Your task to perform on an android device: What's the weather? Image 0: 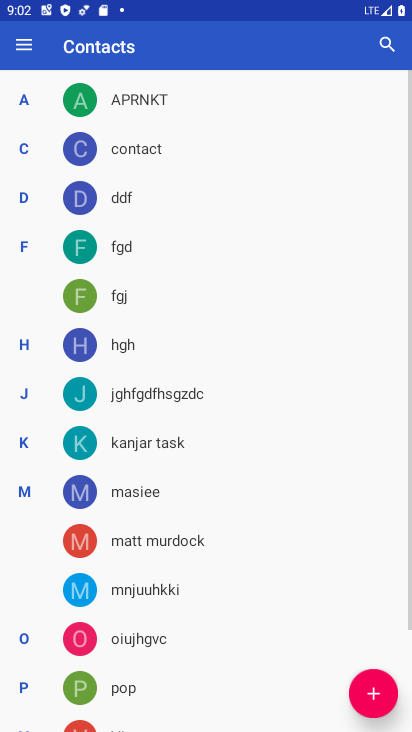
Step 0: press home button
Your task to perform on an android device: What's the weather? Image 1: 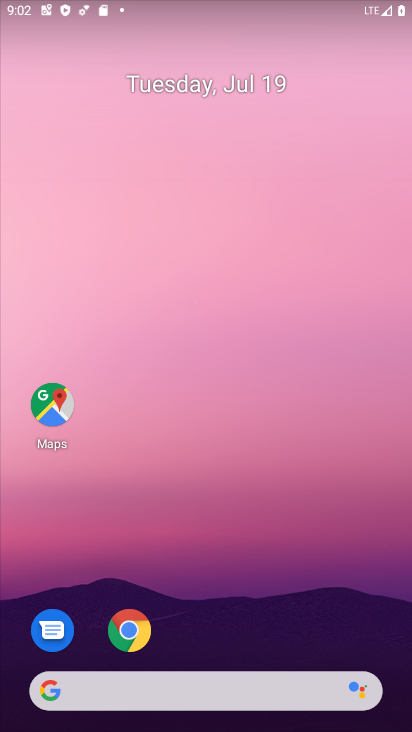
Step 1: drag from (242, 621) to (246, 170)
Your task to perform on an android device: What's the weather? Image 2: 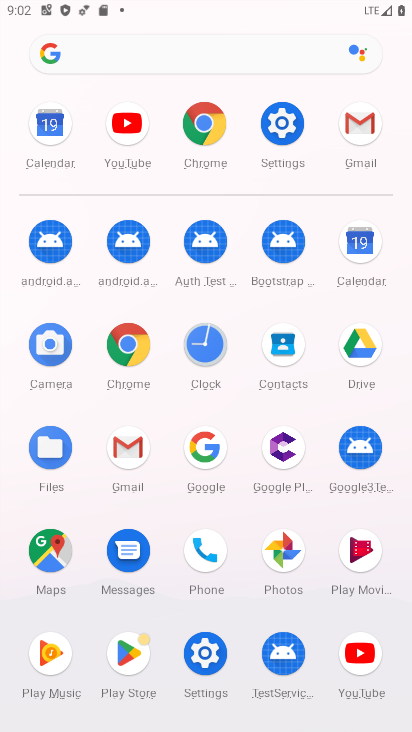
Step 2: click (205, 449)
Your task to perform on an android device: What's the weather? Image 3: 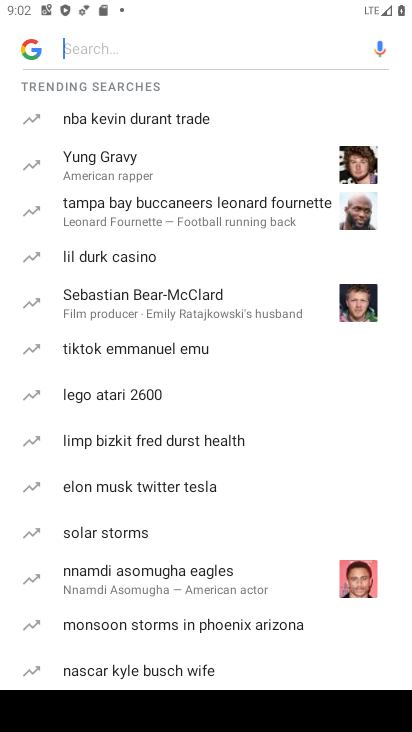
Step 3: type "weather"
Your task to perform on an android device: What's the weather? Image 4: 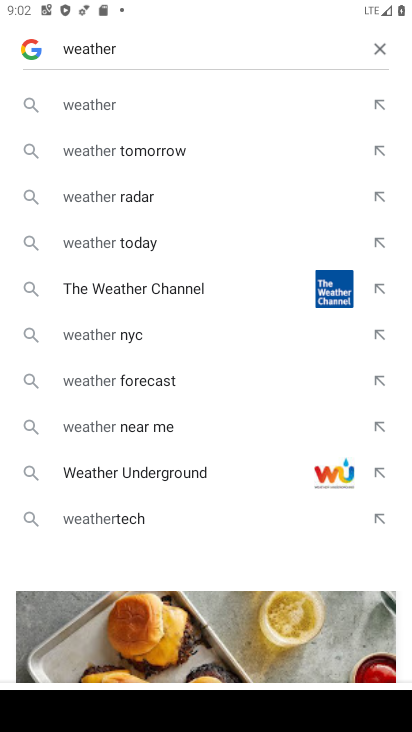
Step 4: click (85, 112)
Your task to perform on an android device: What's the weather? Image 5: 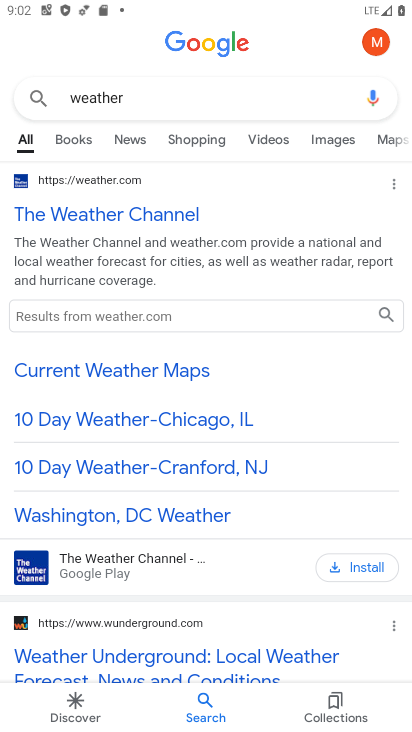
Step 5: task complete